Your task to perform on an android device: Search for "lg ultragear" on costco.com, select the first entry, add it to the cart, then select checkout. Image 0: 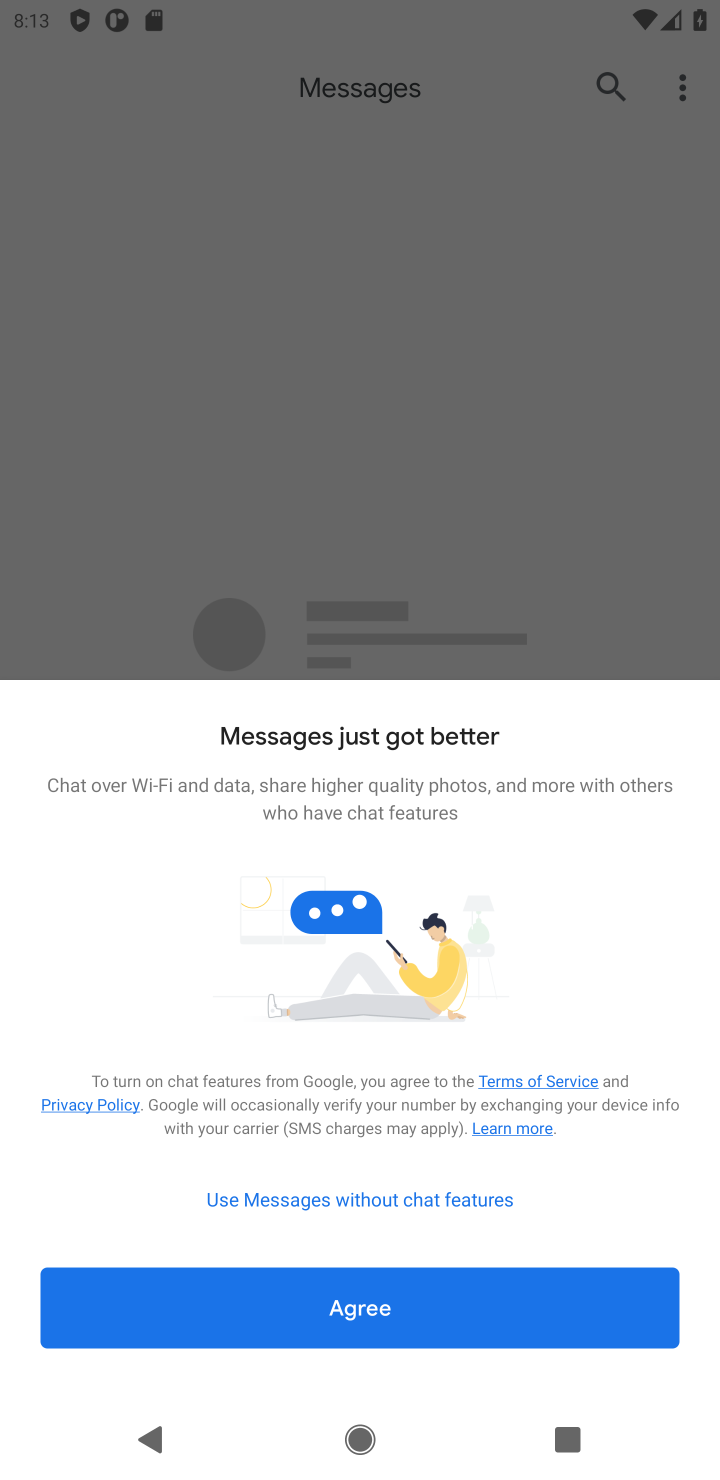
Step 0: task complete